Your task to perform on an android device: Empty the shopping cart on walmart. Add logitech g502 to the cart on walmart Image 0: 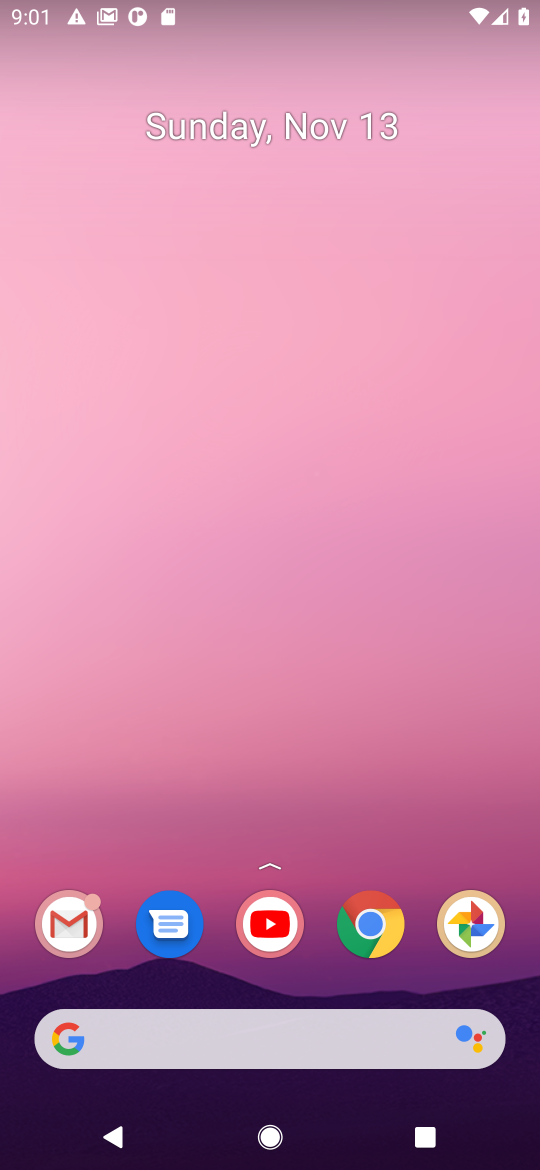
Step 0: click (368, 939)
Your task to perform on an android device: Empty the shopping cart on walmart. Add logitech g502 to the cart on walmart Image 1: 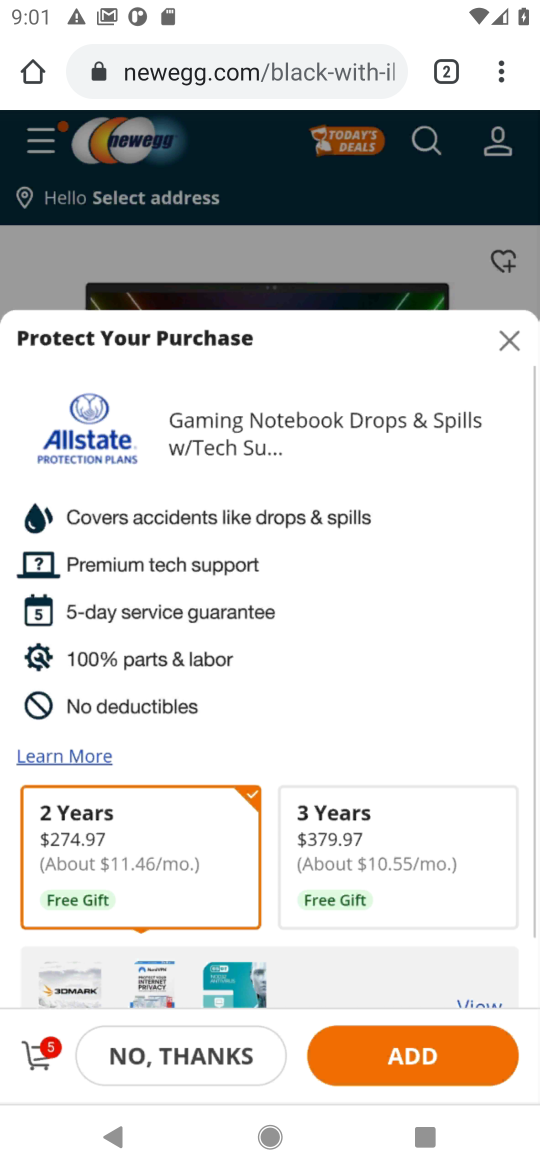
Step 1: click (260, 74)
Your task to perform on an android device: Empty the shopping cart on walmart. Add logitech g502 to the cart on walmart Image 2: 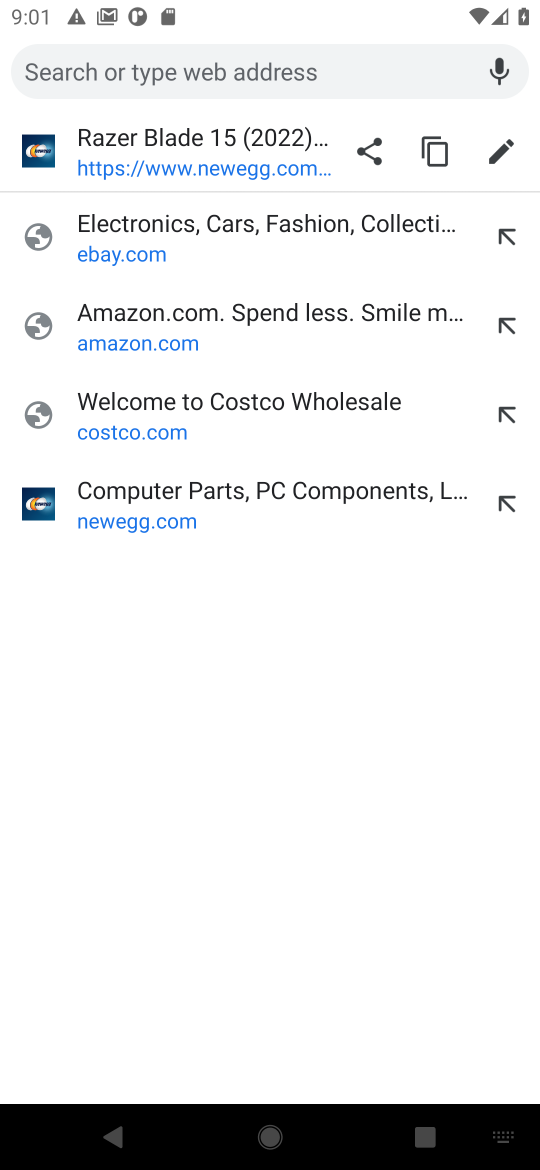
Step 2: type "walmart.com"
Your task to perform on an android device: Empty the shopping cart on walmart. Add logitech g502 to the cart on walmart Image 3: 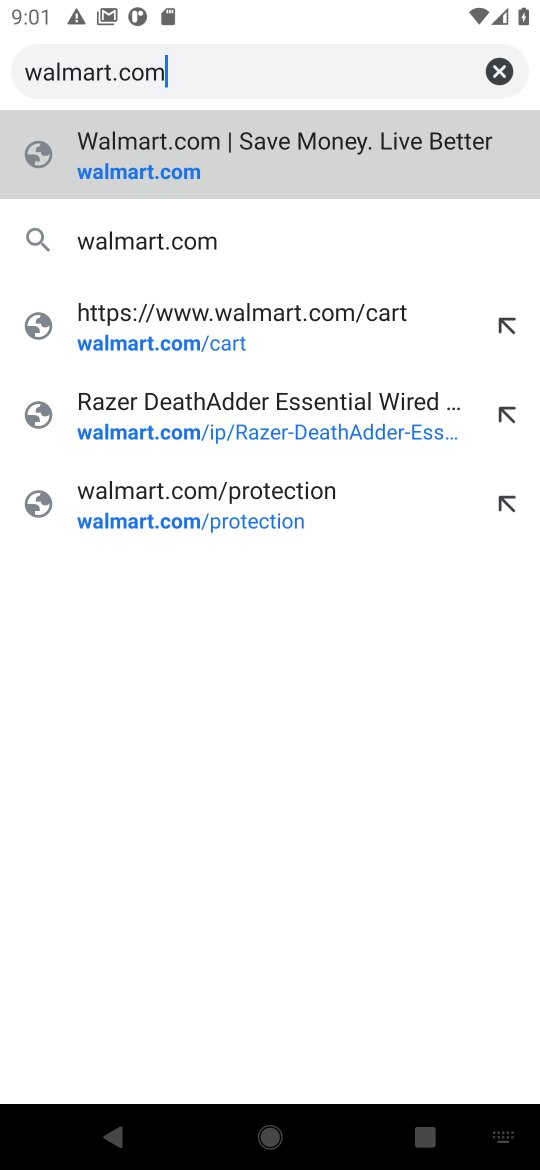
Step 3: click (109, 152)
Your task to perform on an android device: Empty the shopping cart on walmart. Add logitech g502 to the cart on walmart Image 4: 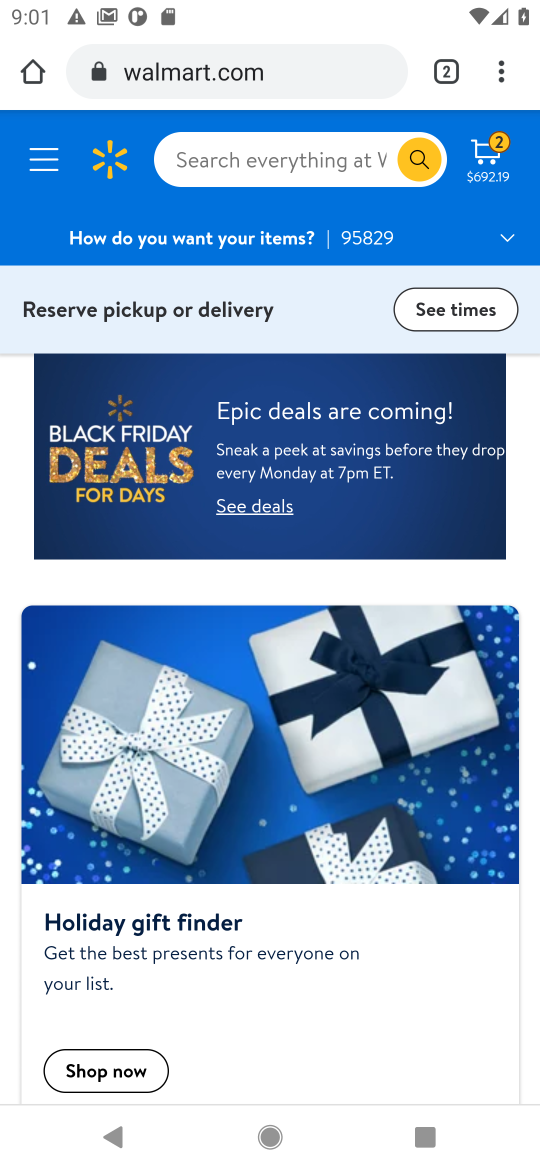
Step 4: click (484, 149)
Your task to perform on an android device: Empty the shopping cart on walmart. Add logitech g502 to the cart on walmart Image 5: 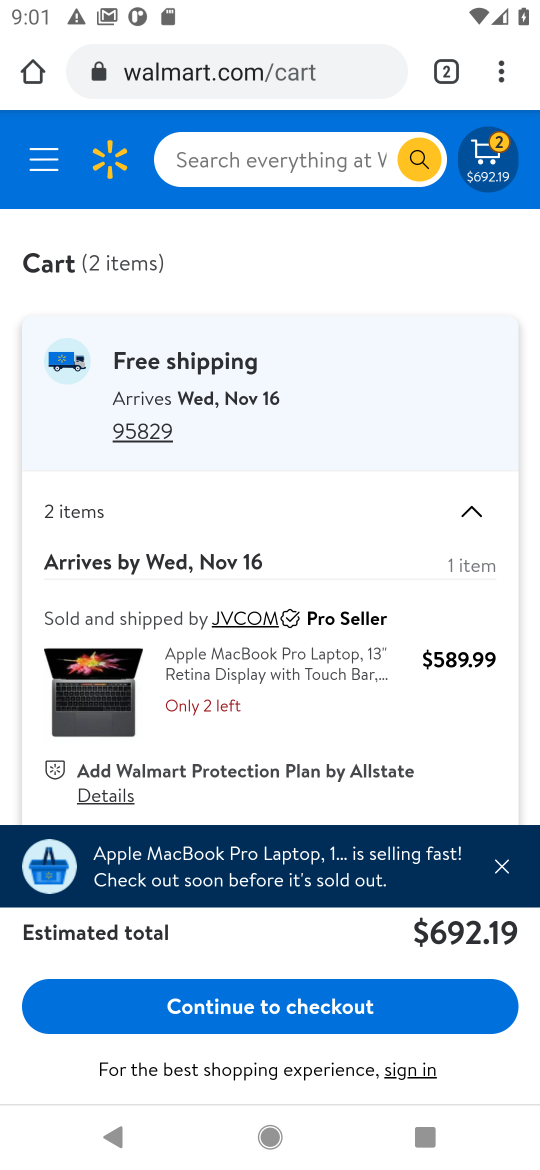
Step 5: drag from (199, 743) to (211, 342)
Your task to perform on an android device: Empty the shopping cart on walmart. Add logitech g502 to the cart on walmart Image 6: 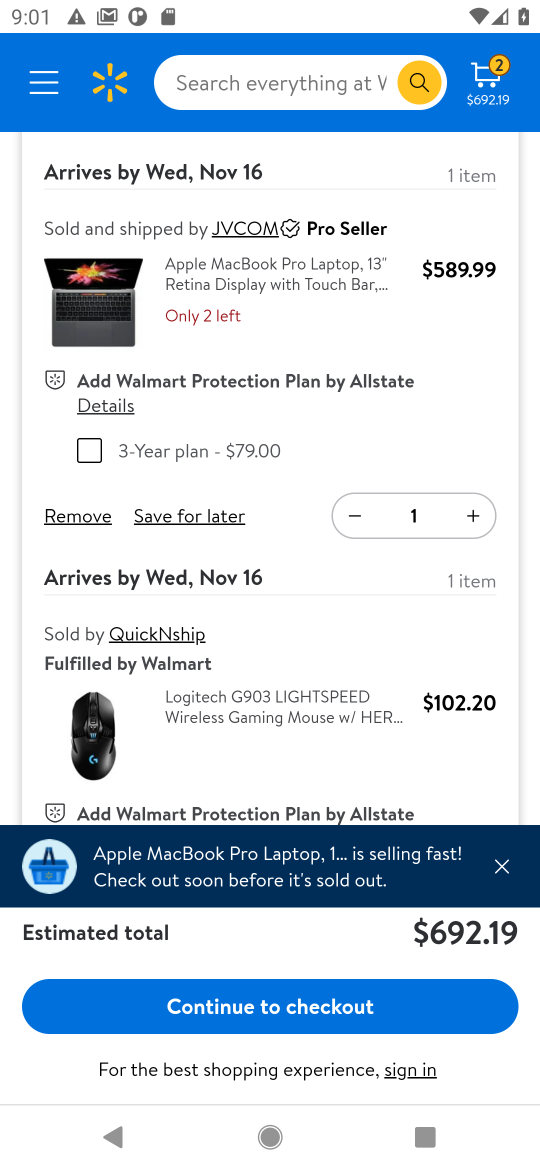
Step 6: click (80, 526)
Your task to perform on an android device: Empty the shopping cart on walmart. Add logitech g502 to the cart on walmart Image 7: 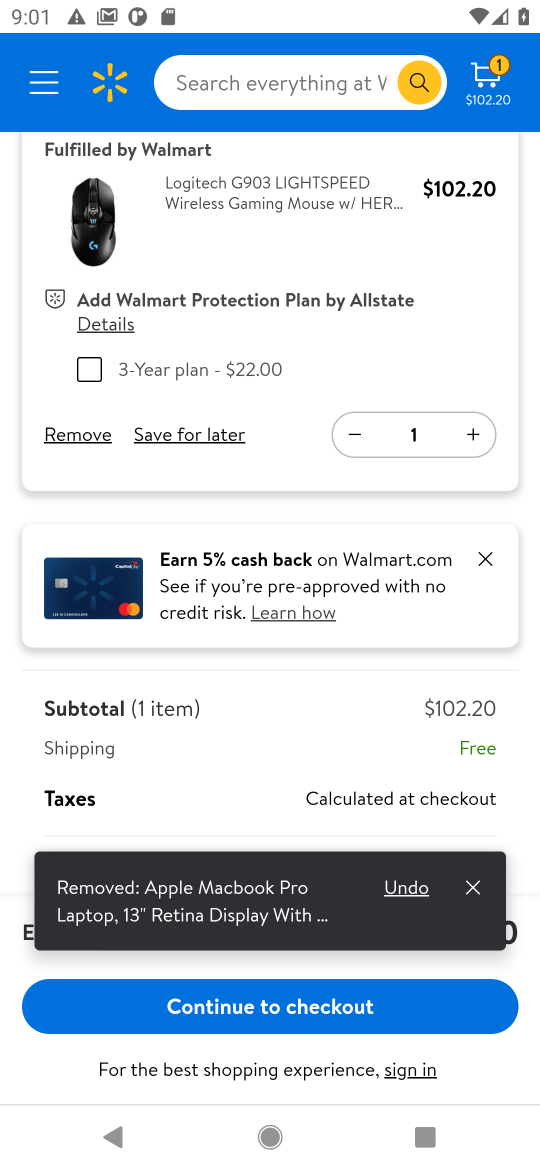
Step 7: click (84, 440)
Your task to perform on an android device: Empty the shopping cart on walmart. Add logitech g502 to the cart on walmart Image 8: 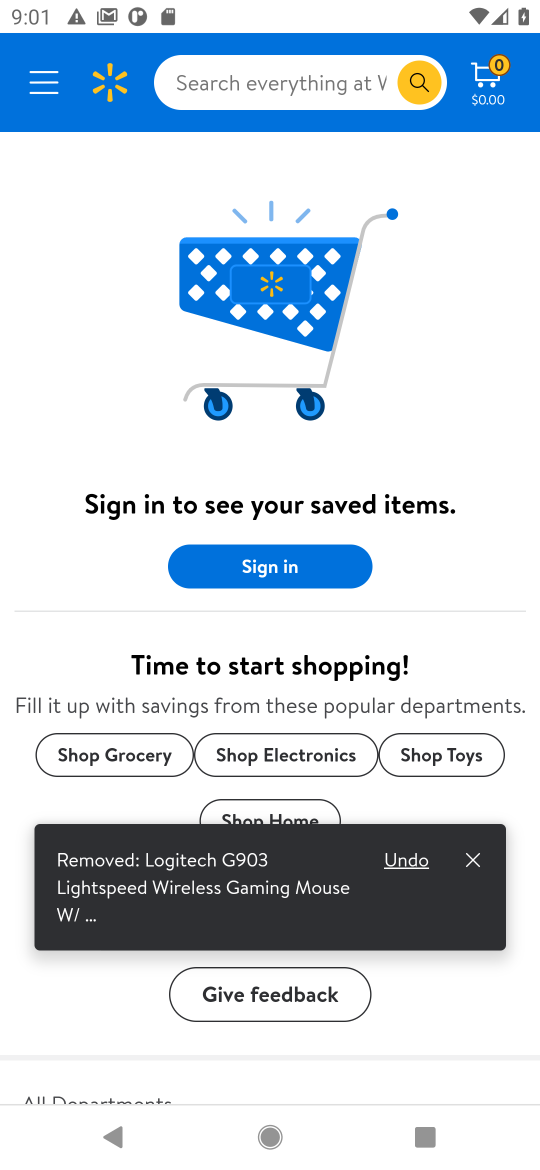
Step 8: click (476, 861)
Your task to perform on an android device: Empty the shopping cart on walmart. Add logitech g502 to the cart on walmart Image 9: 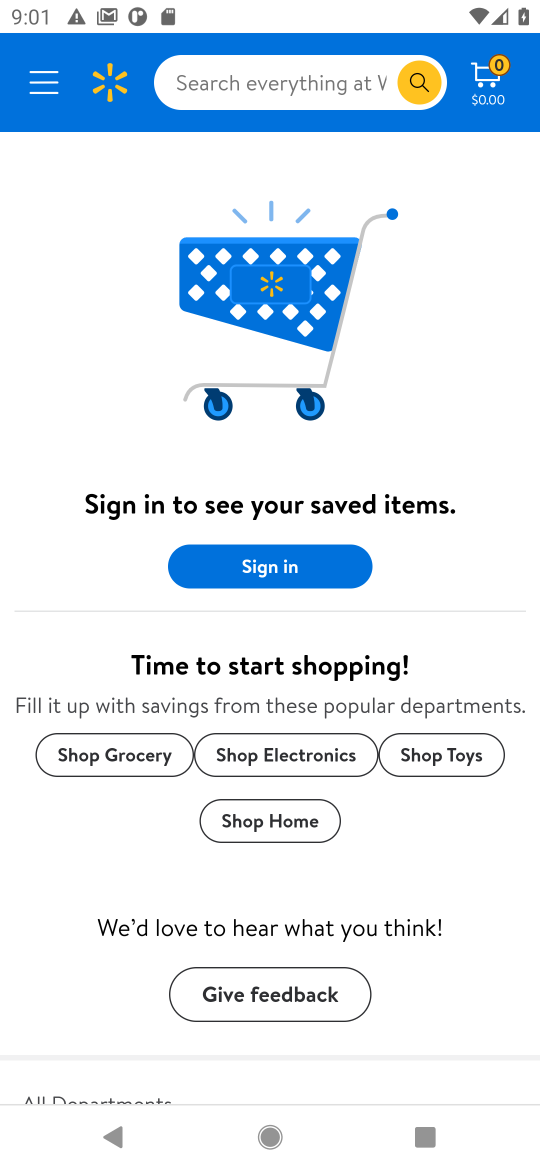
Step 9: click (195, 81)
Your task to perform on an android device: Empty the shopping cart on walmart. Add logitech g502 to the cart on walmart Image 10: 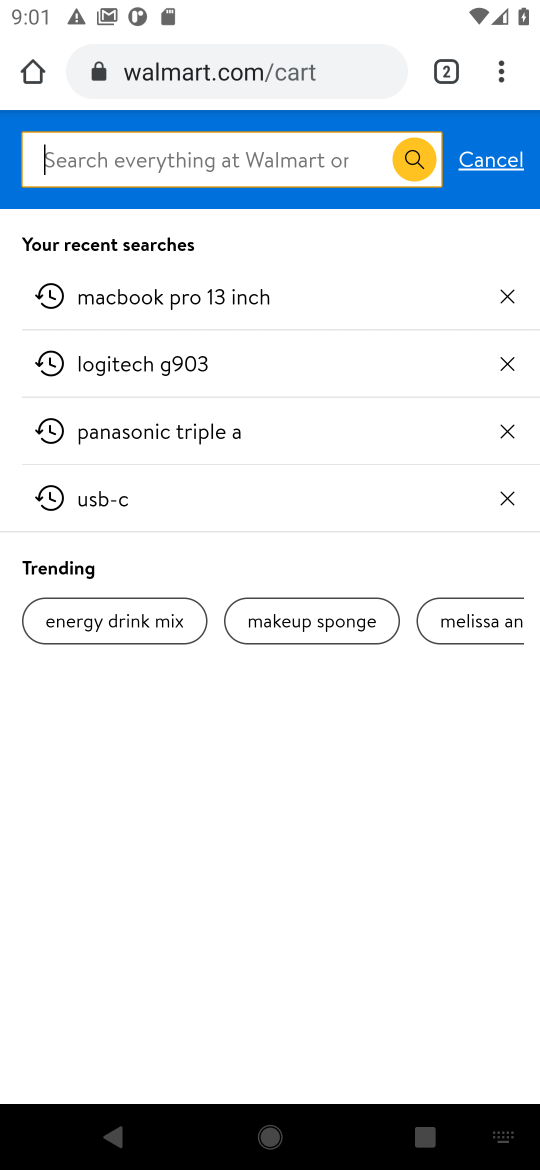
Step 10: type "logitech g502"
Your task to perform on an android device: Empty the shopping cart on walmart. Add logitech g502 to the cart on walmart Image 11: 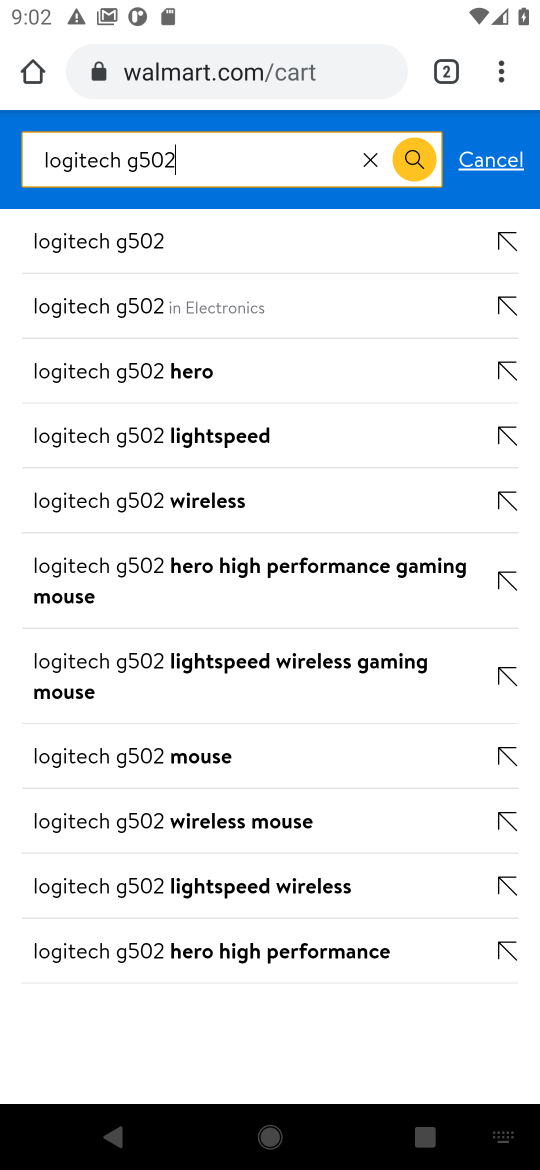
Step 11: click (115, 234)
Your task to perform on an android device: Empty the shopping cart on walmart. Add logitech g502 to the cart on walmart Image 12: 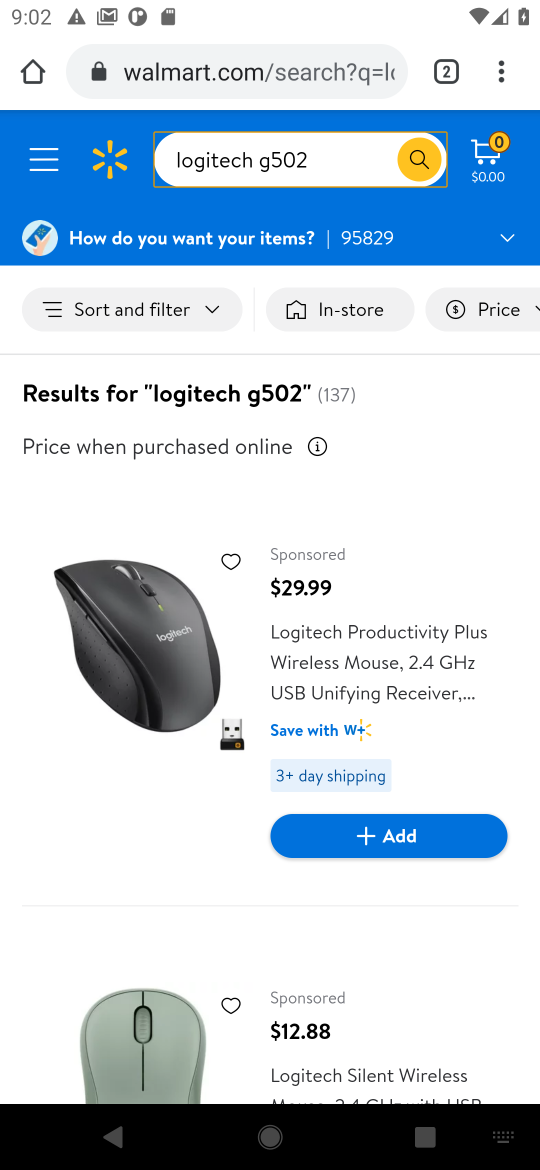
Step 12: drag from (200, 914) to (156, 336)
Your task to perform on an android device: Empty the shopping cart on walmart. Add logitech g502 to the cart on walmart Image 13: 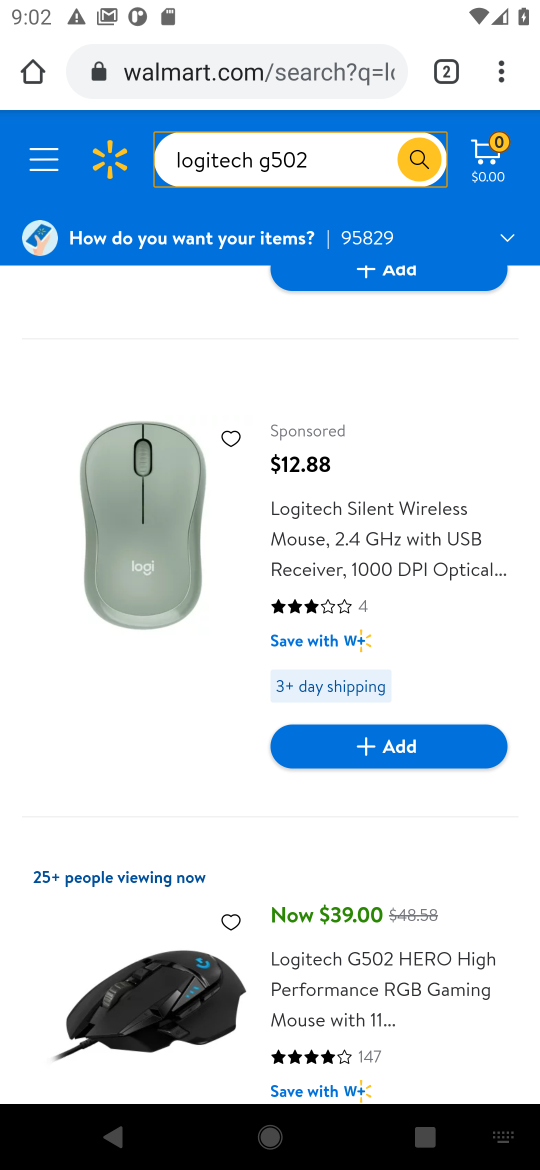
Step 13: drag from (120, 993) to (130, 611)
Your task to perform on an android device: Empty the shopping cart on walmart. Add logitech g502 to the cart on walmart Image 14: 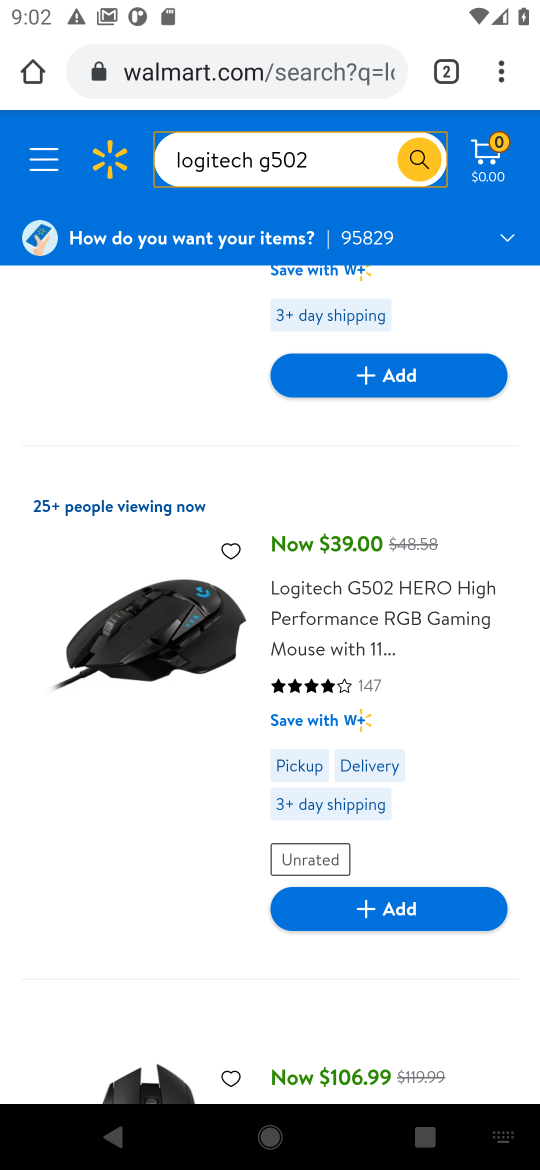
Step 14: click (412, 915)
Your task to perform on an android device: Empty the shopping cart on walmart. Add logitech g502 to the cart on walmart Image 15: 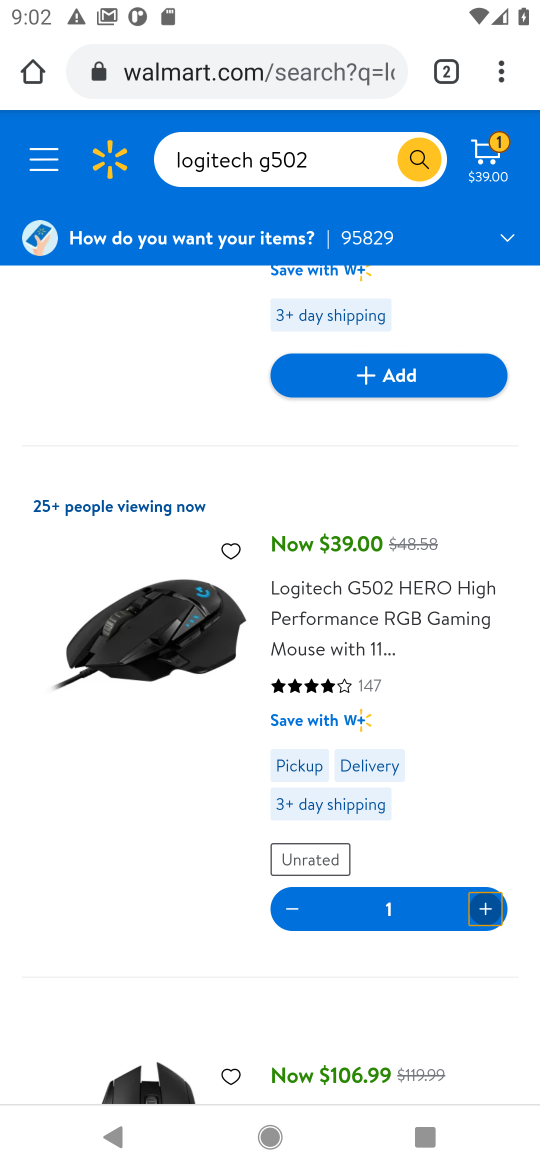
Step 15: task complete